Your task to perform on an android device: What is the recent news? Image 0: 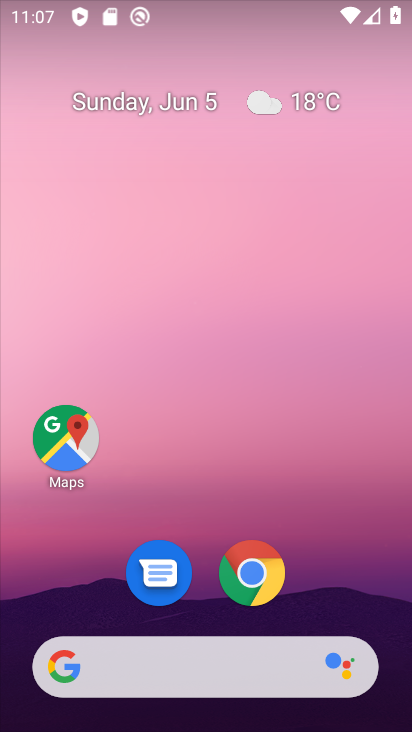
Step 0: drag from (5, 338) to (408, 367)
Your task to perform on an android device: What is the recent news? Image 1: 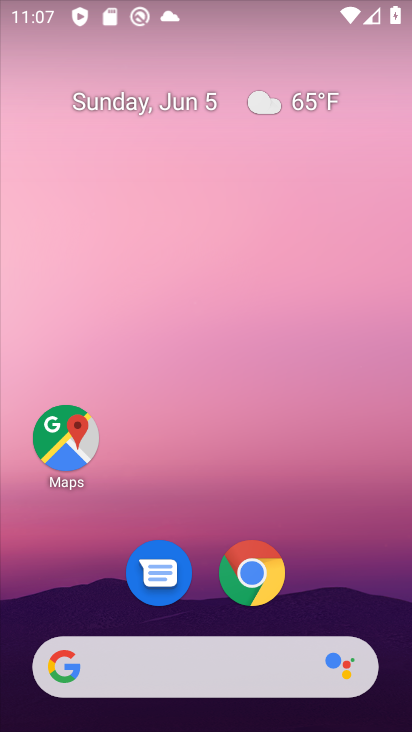
Step 1: task complete